Your task to perform on an android device: Is it going to rain today? Image 0: 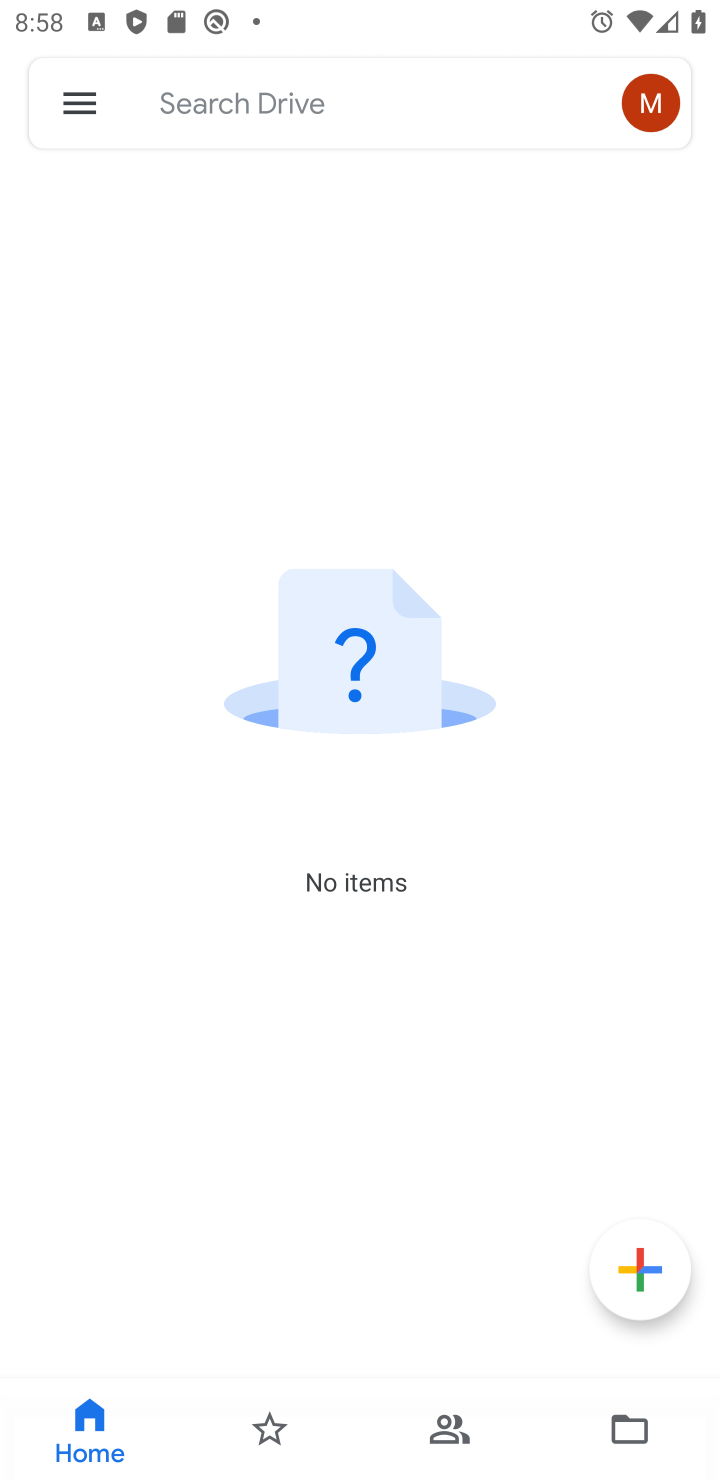
Step 0: press home button
Your task to perform on an android device: Is it going to rain today? Image 1: 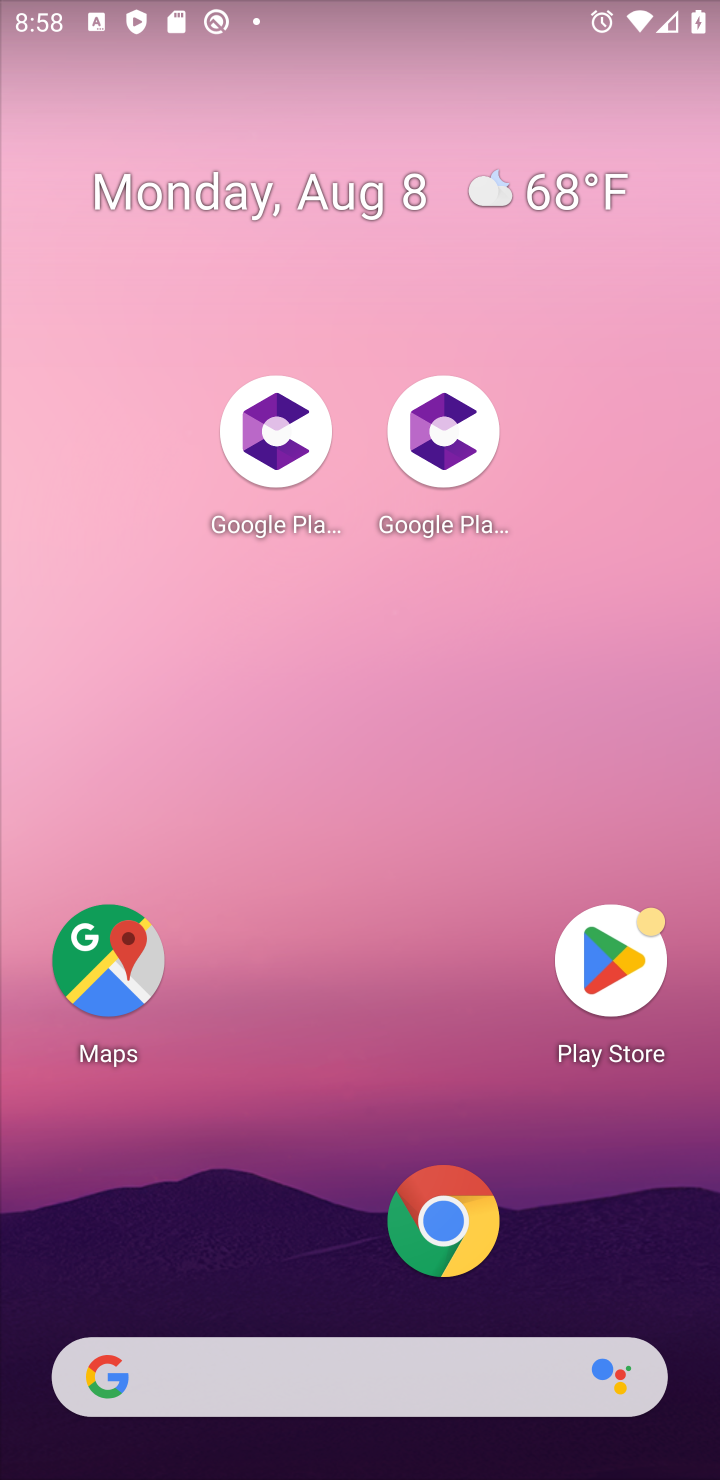
Step 1: click (297, 1390)
Your task to perform on an android device: Is it going to rain today? Image 2: 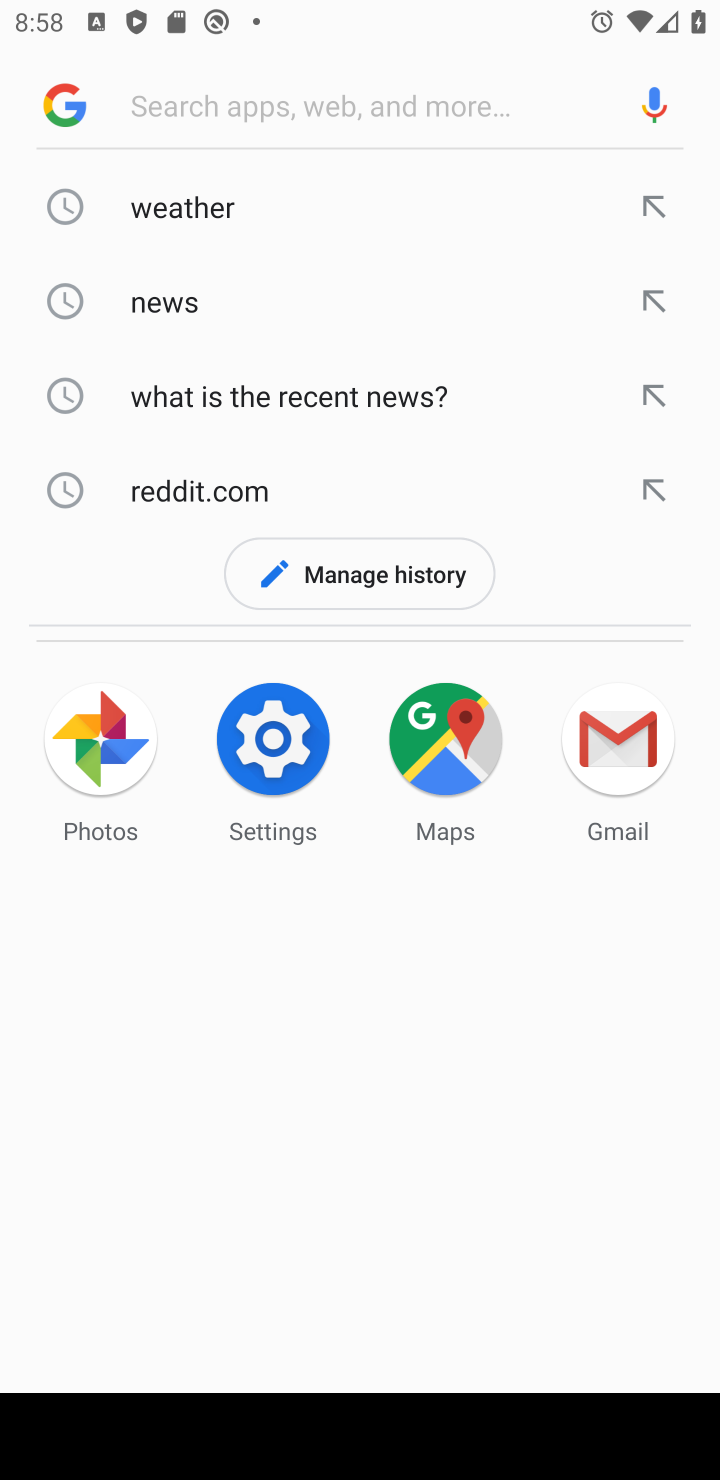
Step 2: click (216, 225)
Your task to perform on an android device: Is it going to rain today? Image 3: 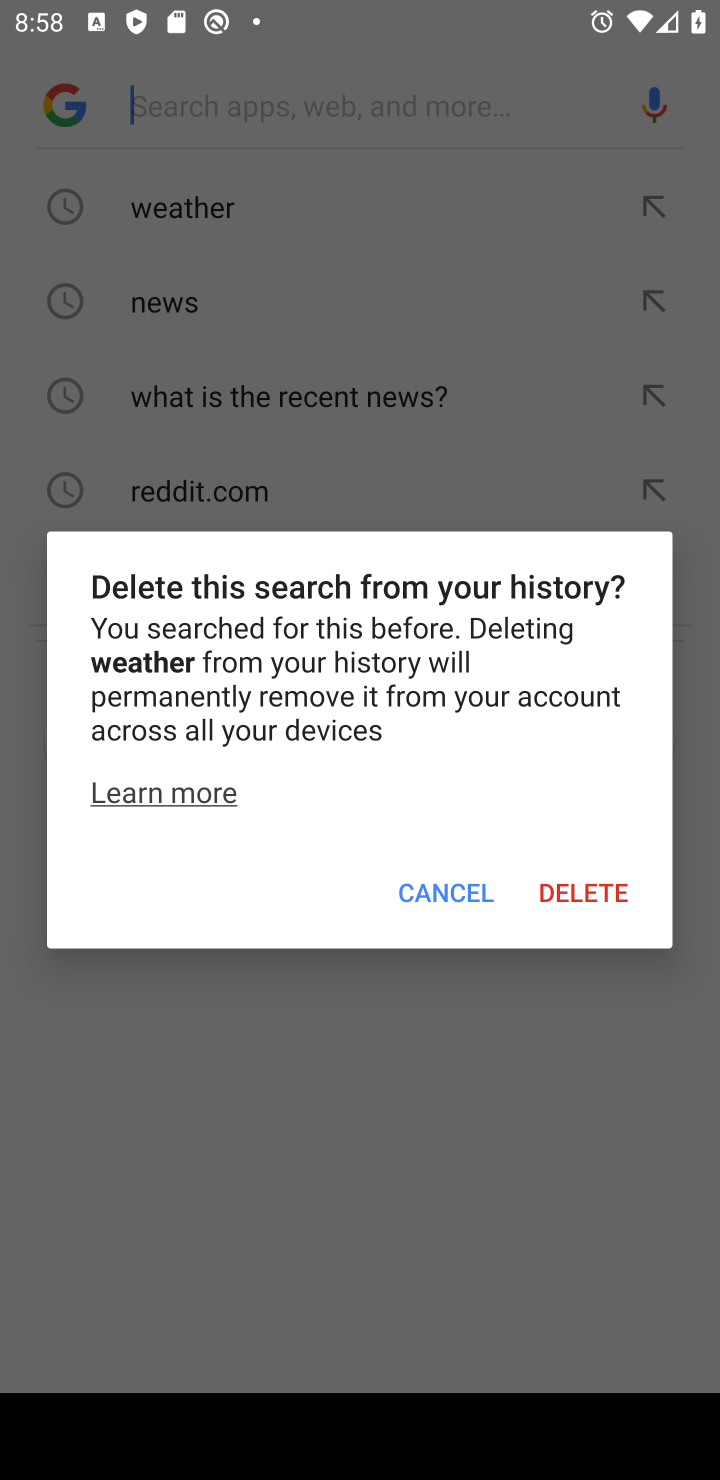
Step 3: click (455, 905)
Your task to perform on an android device: Is it going to rain today? Image 4: 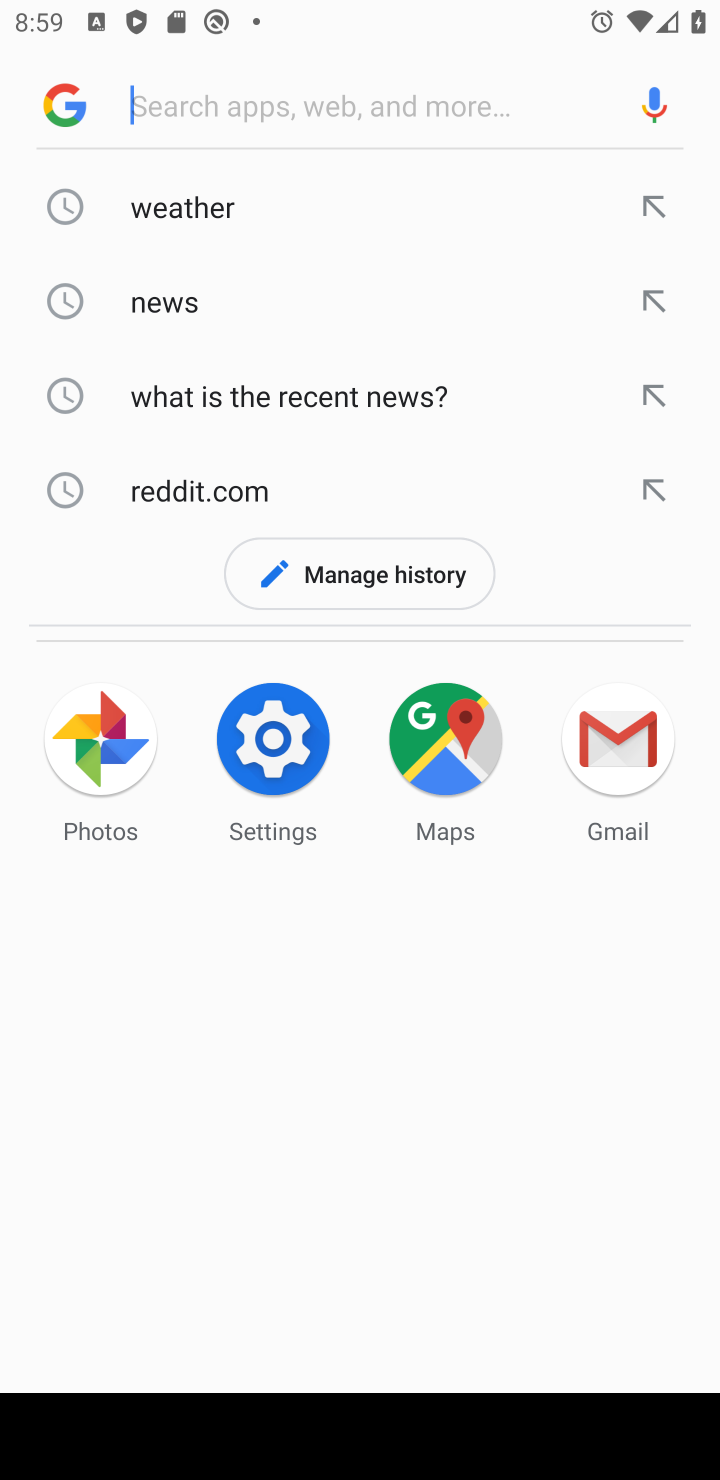
Step 4: click (108, 199)
Your task to perform on an android device: Is it going to rain today? Image 5: 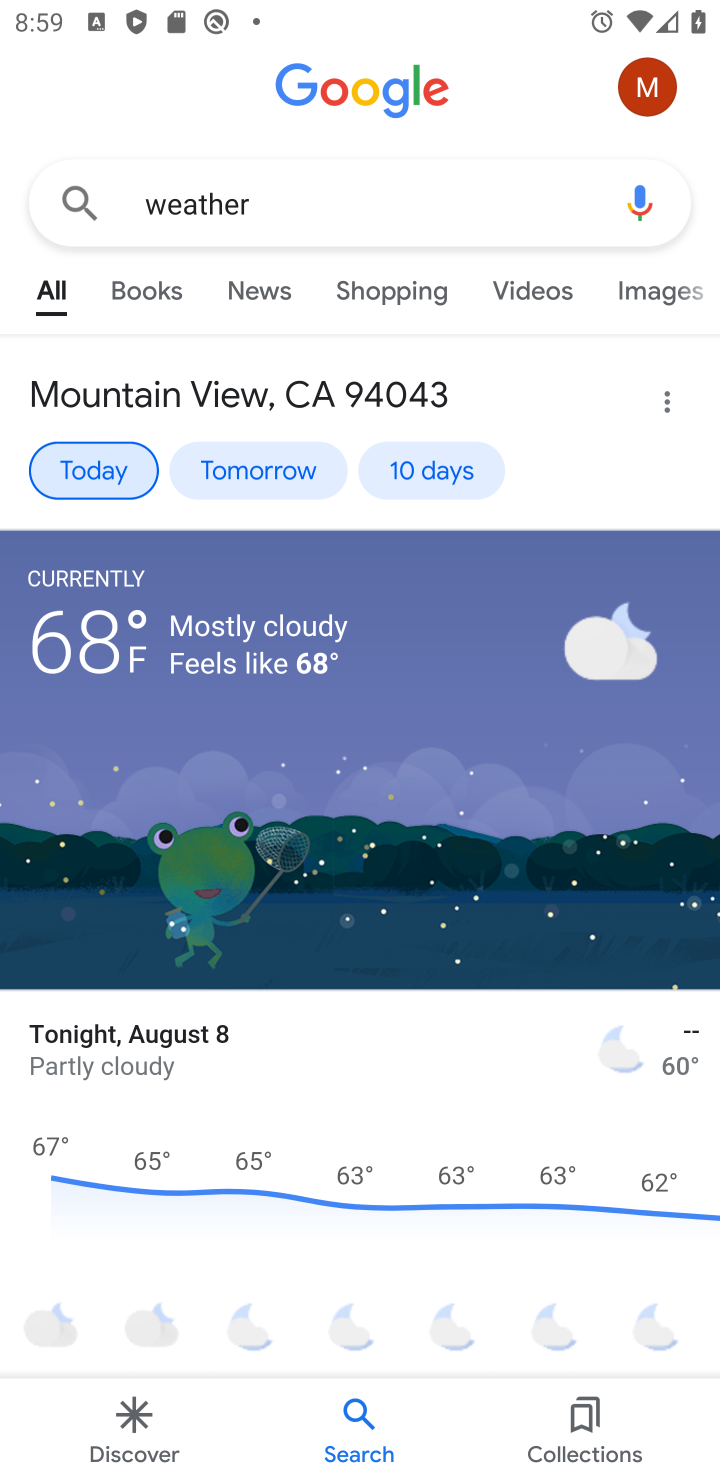
Step 5: task complete